Your task to perform on an android device: set default search engine in the chrome app Image 0: 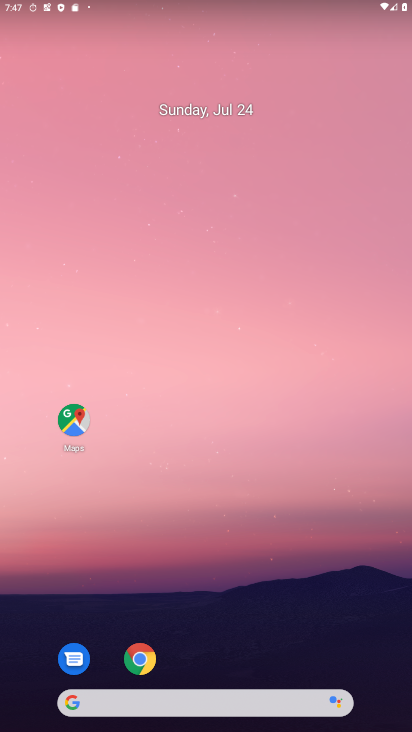
Step 0: drag from (365, 624) to (44, 38)
Your task to perform on an android device: set default search engine in the chrome app Image 1: 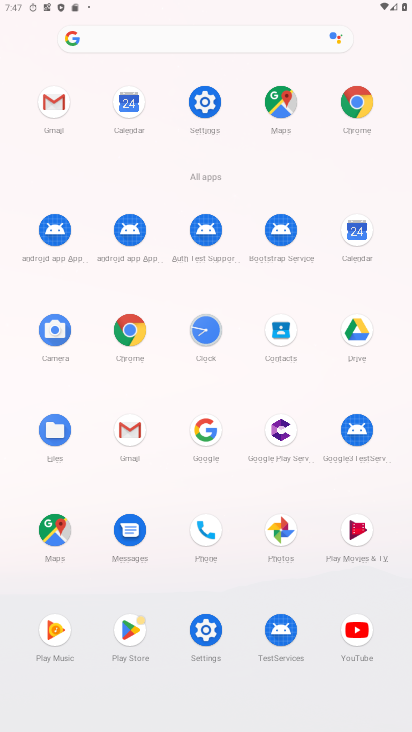
Step 1: click (133, 334)
Your task to perform on an android device: set default search engine in the chrome app Image 2: 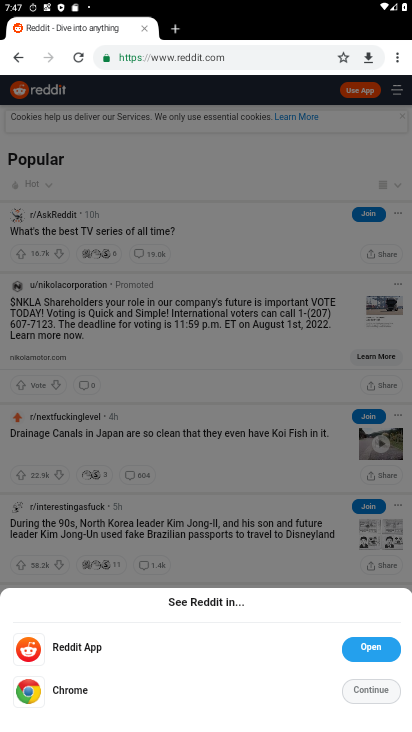
Step 2: drag from (397, 48) to (269, 394)
Your task to perform on an android device: set default search engine in the chrome app Image 3: 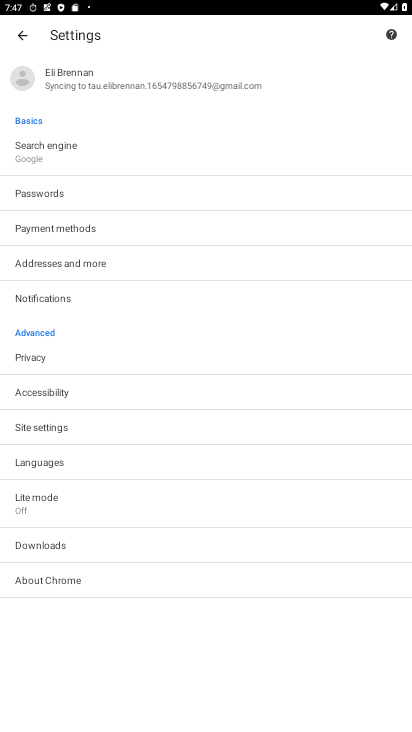
Step 3: click (56, 147)
Your task to perform on an android device: set default search engine in the chrome app Image 4: 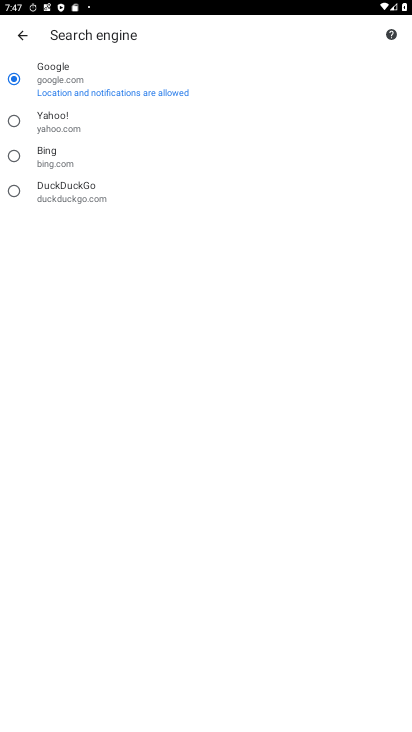
Step 4: task complete